Your task to perform on an android device: turn off location Image 0: 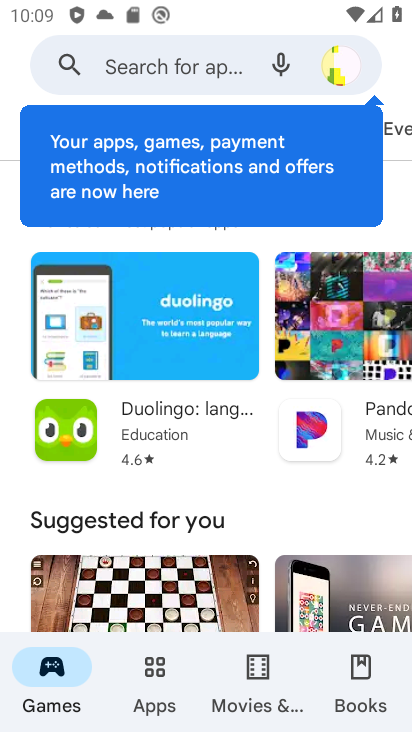
Step 0: press home button
Your task to perform on an android device: turn off location Image 1: 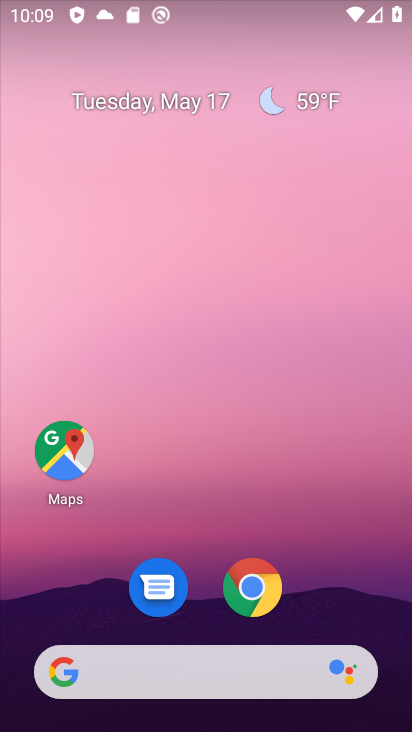
Step 1: drag from (343, 584) to (323, 320)
Your task to perform on an android device: turn off location Image 2: 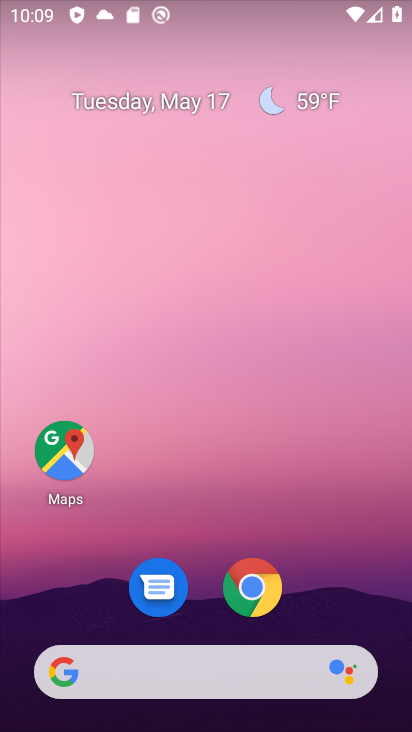
Step 2: drag from (319, 605) to (237, 271)
Your task to perform on an android device: turn off location Image 3: 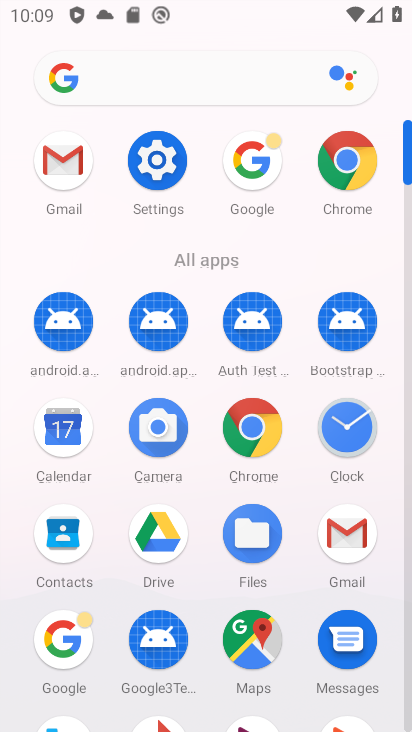
Step 3: click (160, 164)
Your task to perform on an android device: turn off location Image 4: 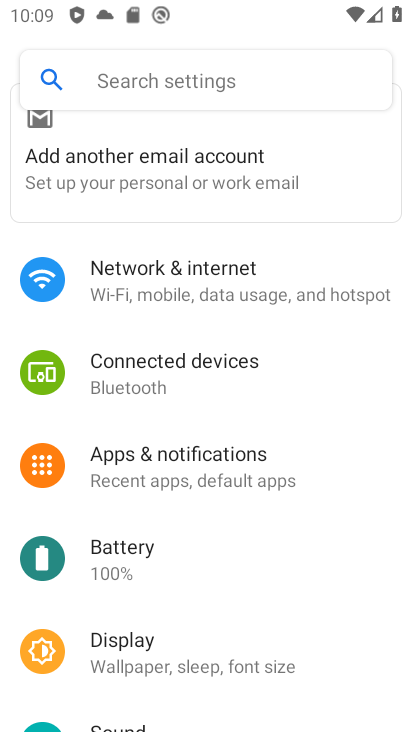
Step 4: drag from (209, 564) to (208, 95)
Your task to perform on an android device: turn off location Image 5: 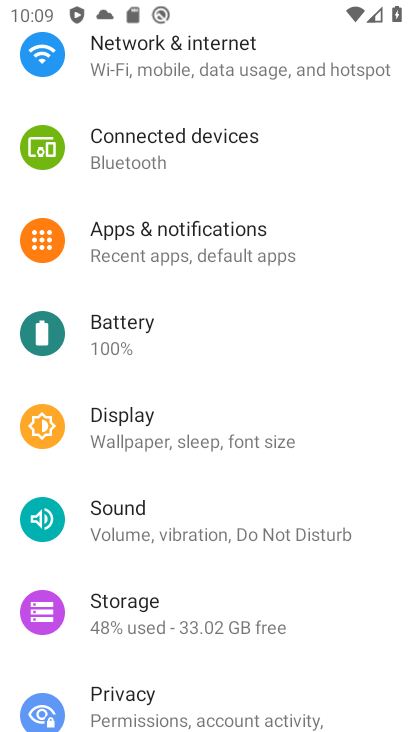
Step 5: drag from (218, 600) to (217, 308)
Your task to perform on an android device: turn off location Image 6: 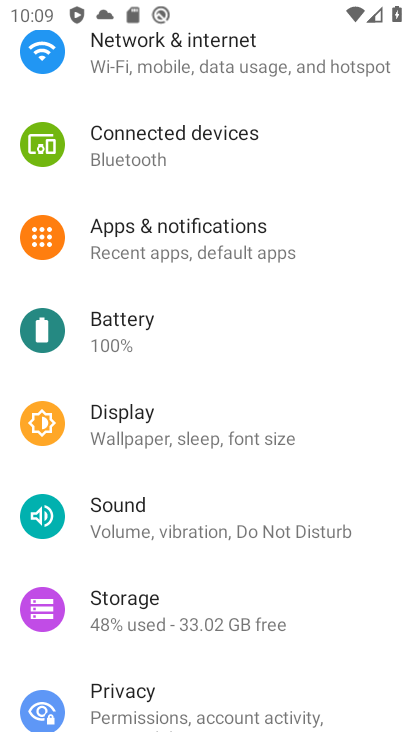
Step 6: drag from (333, 641) to (239, 259)
Your task to perform on an android device: turn off location Image 7: 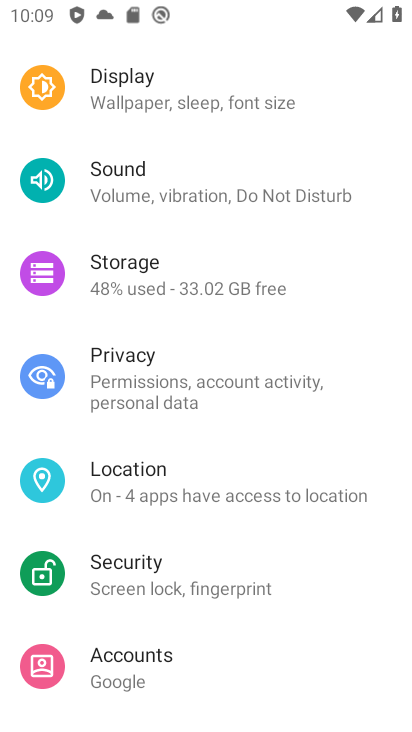
Step 7: click (198, 484)
Your task to perform on an android device: turn off location Image 8: 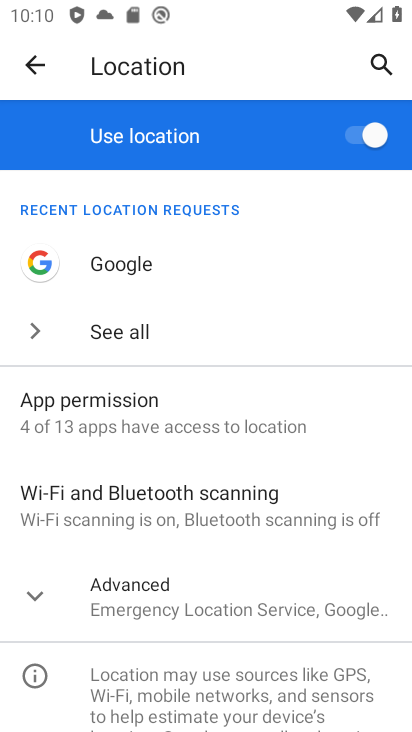
Step 8: click (357, 136)
Your task to perform on an android device: turn off location Image 9: 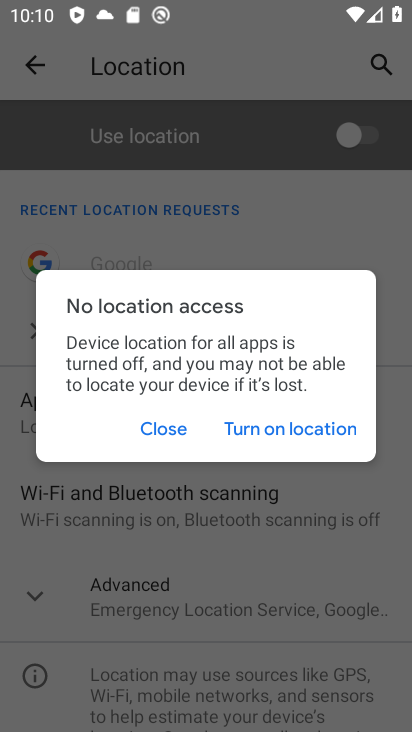
Step 9: click (158, 433)
Your task to perform on an android device: turn off location Image 10: 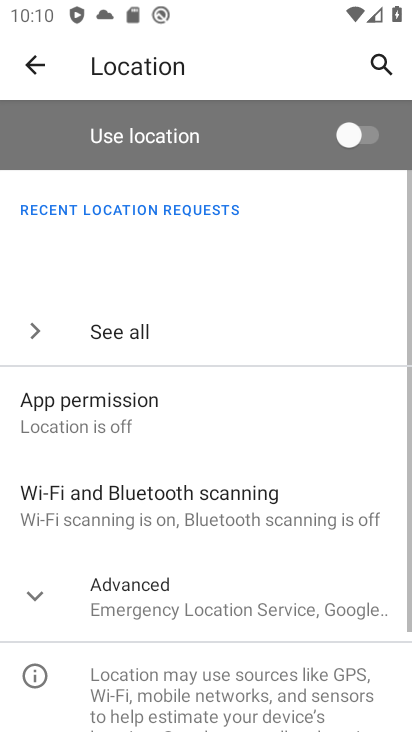
Step 10: click (158, 433)
Your task to perform on an android device: turn off location Image 11: 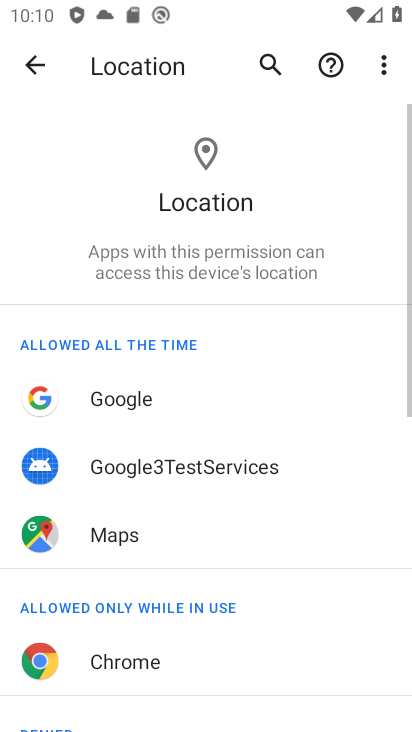
Step 11: task complete